Your task to perform on an android device: Show me productivity apps on the Play Store Image 0: 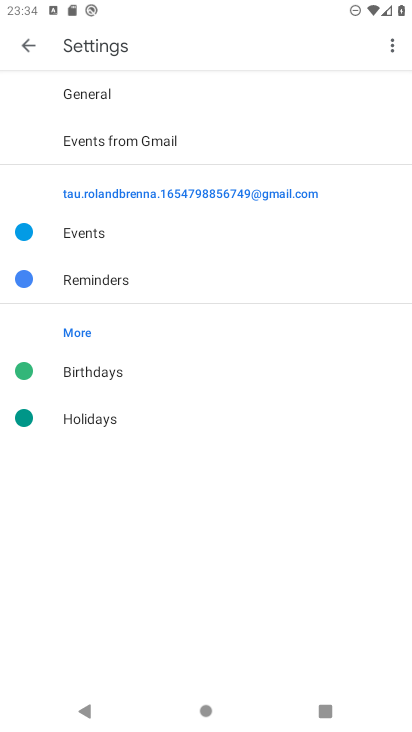
Step 0: press home button
Your task to perform on an android device: Show me productivity apps on the Play Store Image 1: 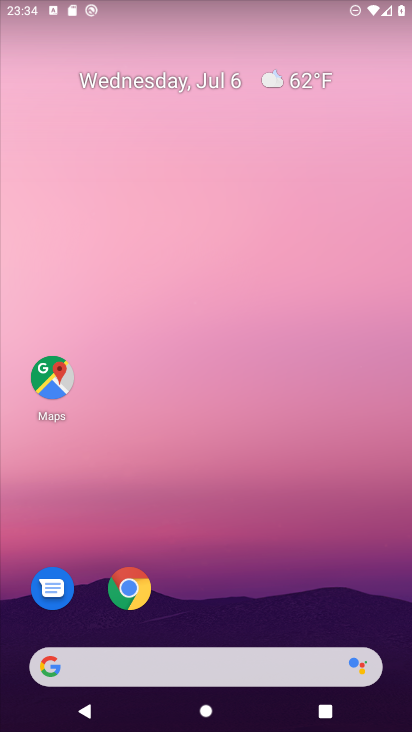
Step 1: drag from (385, 618) to (335, 112)
Your task to perform on an android device: Show me productivity apps on the Play Store Image 2: 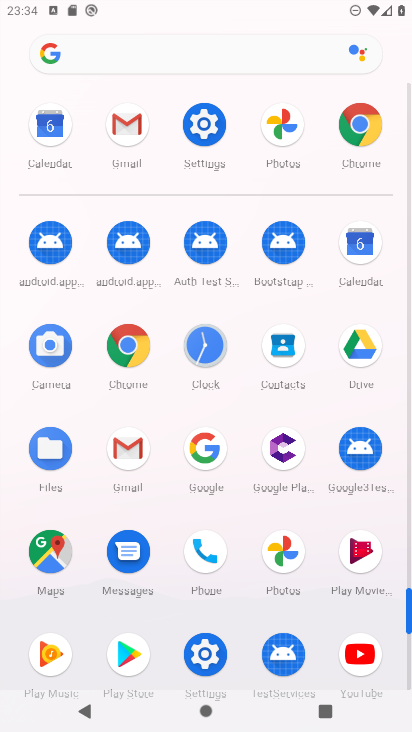
Step 2: click (126, 649)
Your task to perform on an android device: Show me productivity apps on the Play Store Image 3: 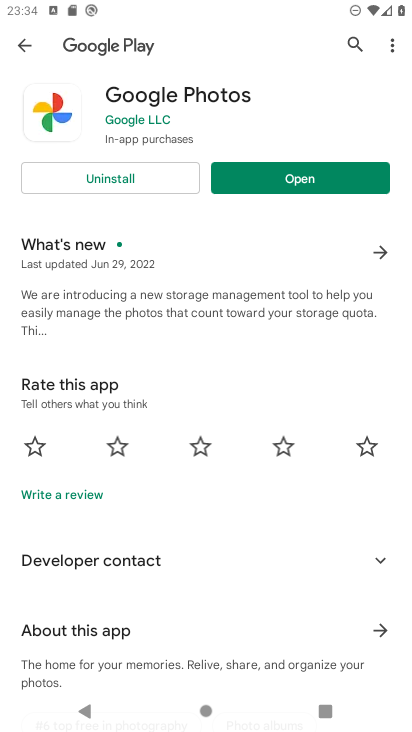
Step 3: press back button
Your task to perform on an android device: Show me productivity apps on the Play Store Image 4: 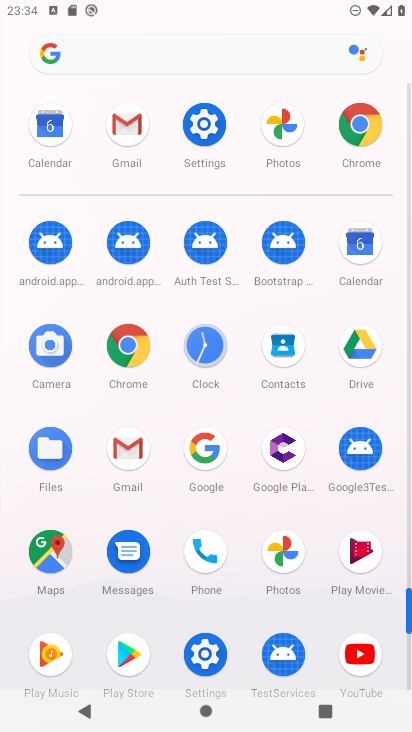
Step 4: click (131, 653)
Your task to perform on an android device: Show me productivity apps on the Play Store Image 5: 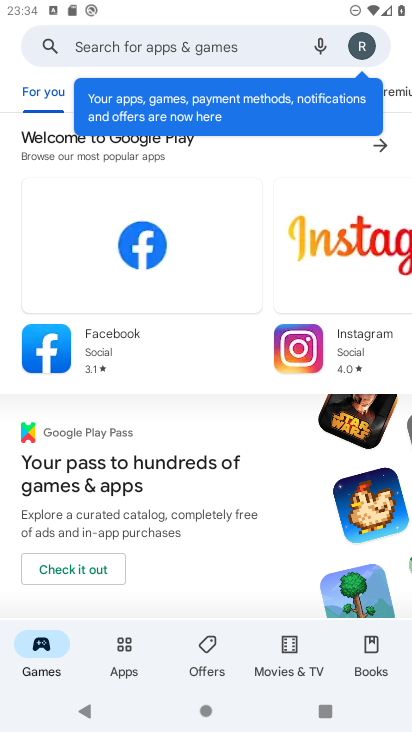
Step 5: click (123, 651)
Your task to perform on an android device: Show me productivity apps on the Play Store Image 6: 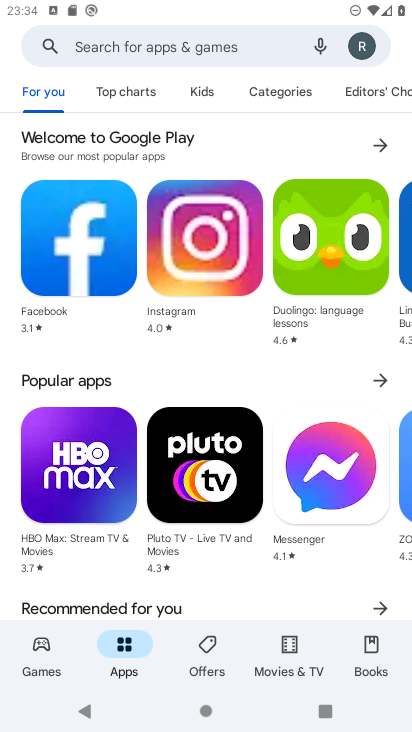
Step 6: click (284, 91)
Your task to perform on an android device: Show me productivity apps on the Play Store Image 7: 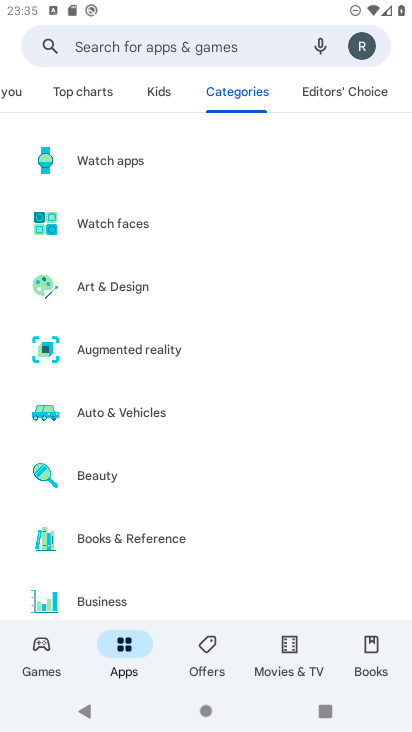
Step 7: drag from (210, 552) to (252, 210)
Your task to perform on an android device: Show me productivity apps on the Play Store Image 8: 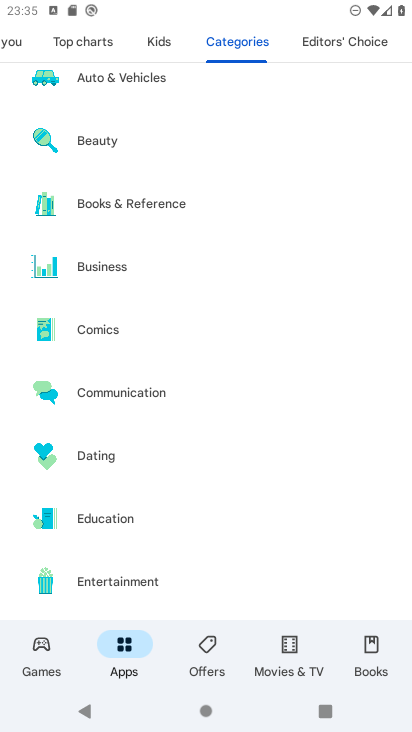
Step 8: drag from (246, 553) to (272, 235)
Your task to perform on an android device: Show me productivity apps on the Play Store Image 9: 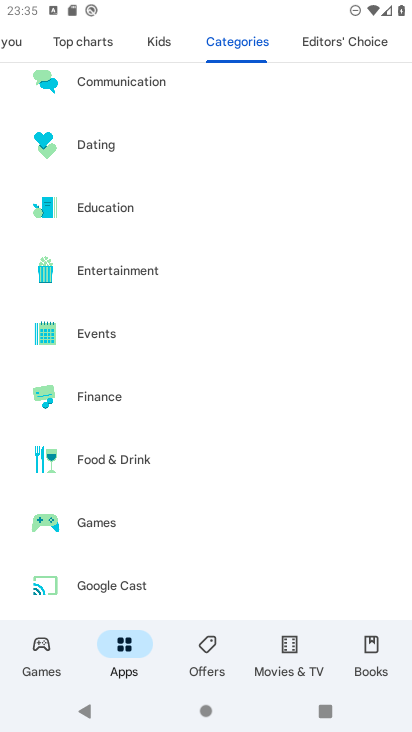
Step 9: drag from (236, 556) to (232, 217)
Your task to perform on an android device: Show me productivity apps on the Play Store Image 10: 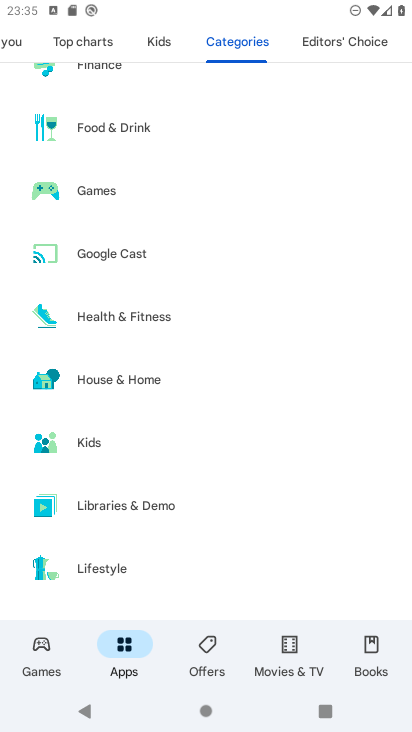
Step 10: drag from (229, 545) to (228, 178)
Your task to perform on an android device: Show me productivity apps on the Play Store Image 11: 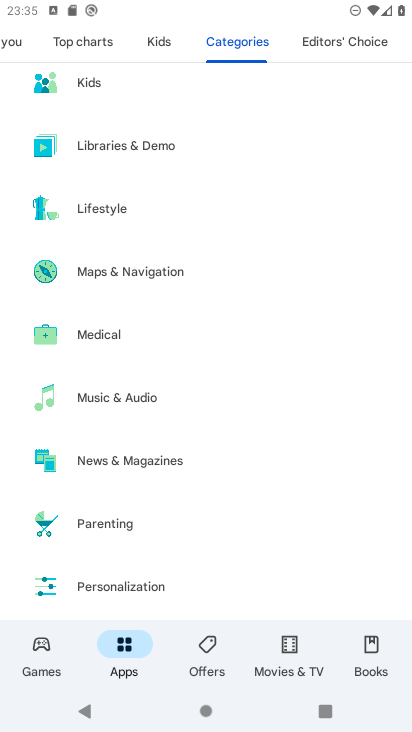
Step 11: drag from (232, 553) to (235, 196)
Your task to perform on an android device: Show me productivity apps on the Play Store Image 12: 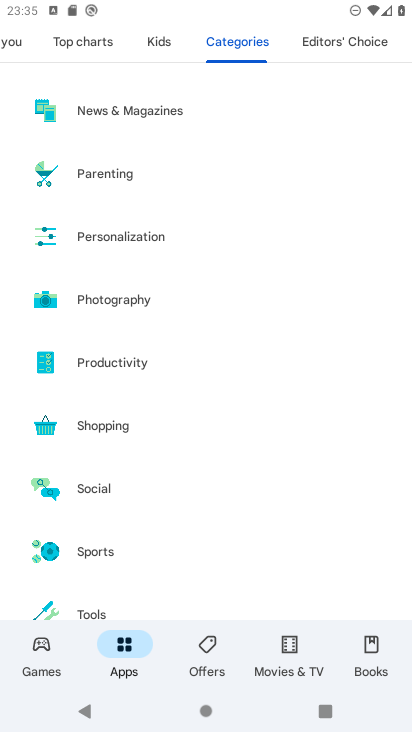
Step 12: click (107, 365)
Your task to perform on an android device: Show me productivity apps on the Play Store Image 13: 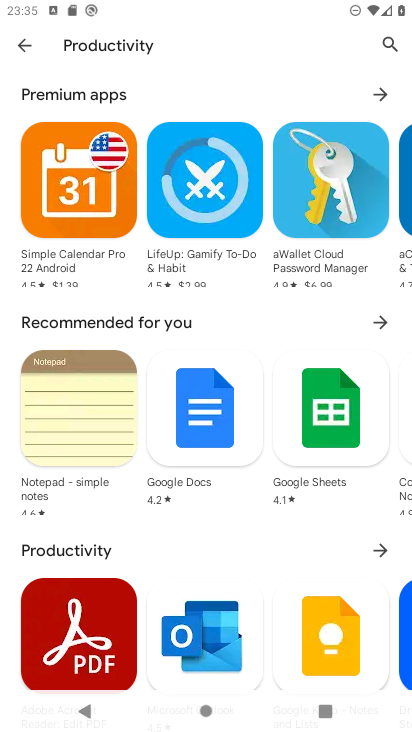
Step 13: task complete